Your task to perform on an android device: Check my email inbox Image 0: 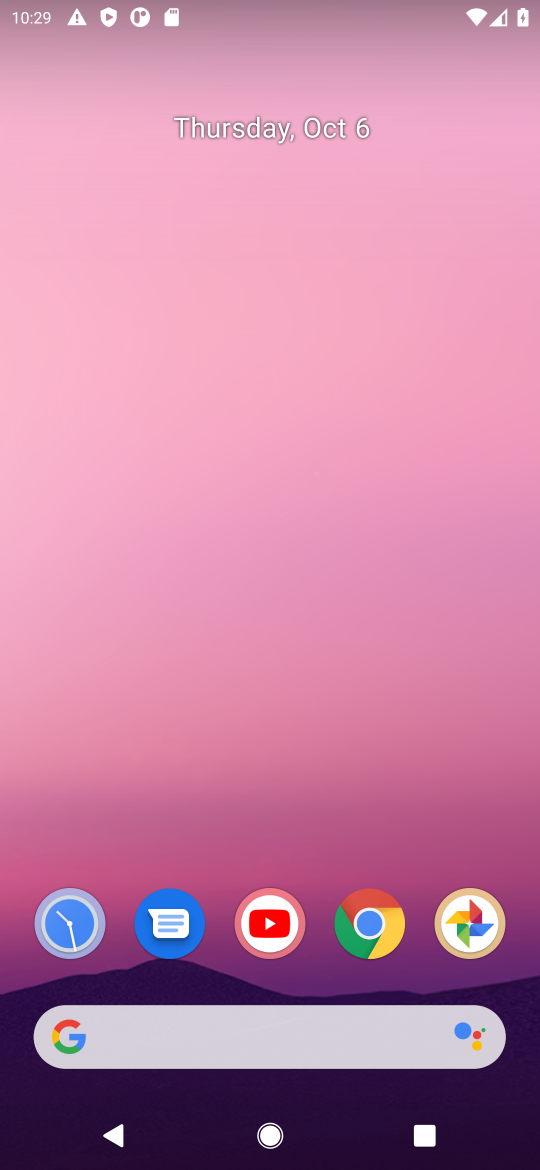
Step 0: drag from (407, 965) to (427, 33)
Your task to perform on an android device: Check my email inbox Image 1: 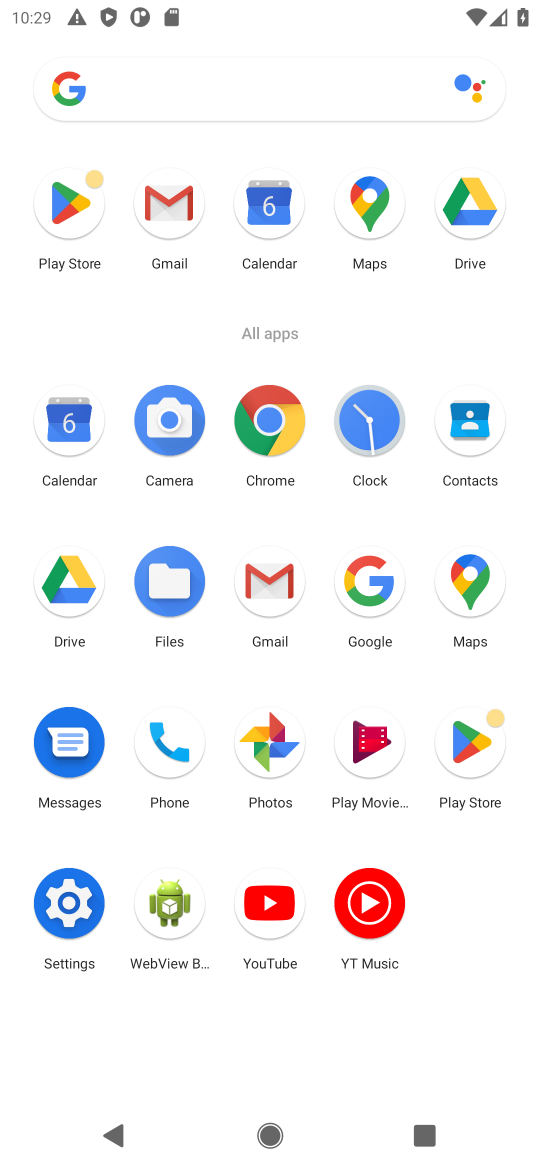
Step 1: click (173, 213)
Your task to perform on an android device: Check my email inbox Image 2: 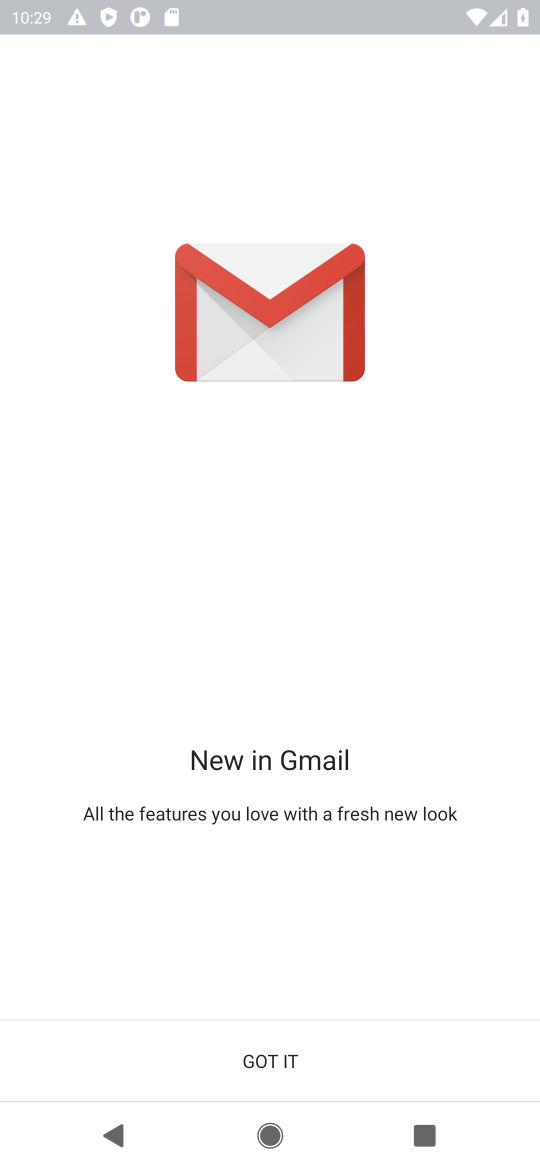
Step 2: click (281, 1059)
Your task to perform on an android device: Check my email inbox Image 3: 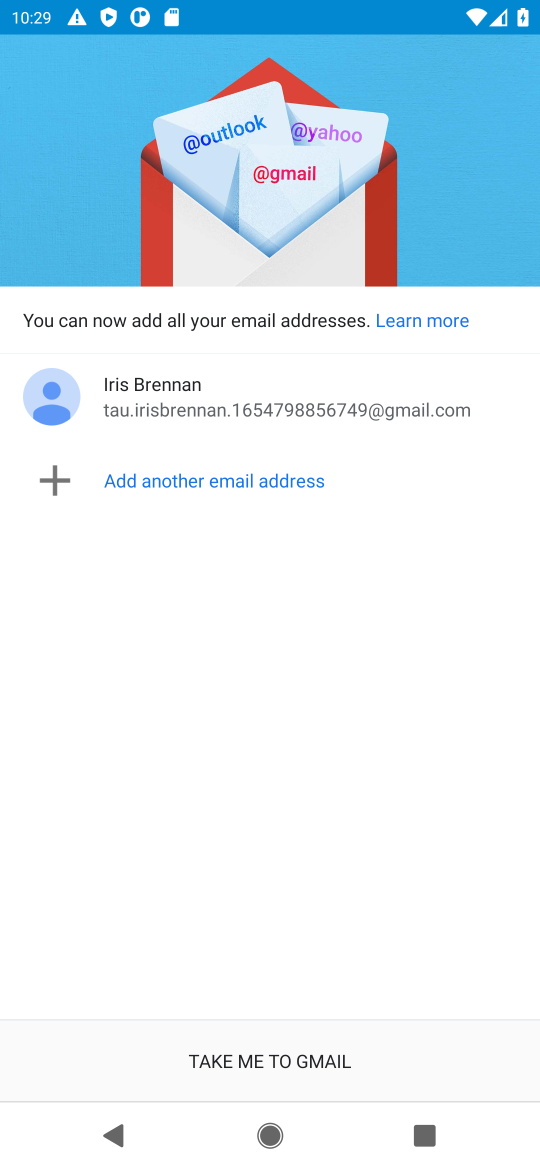
Step 3: click (271, 1057)
Your task to perform on an android device: Check my email inbox Image 4: 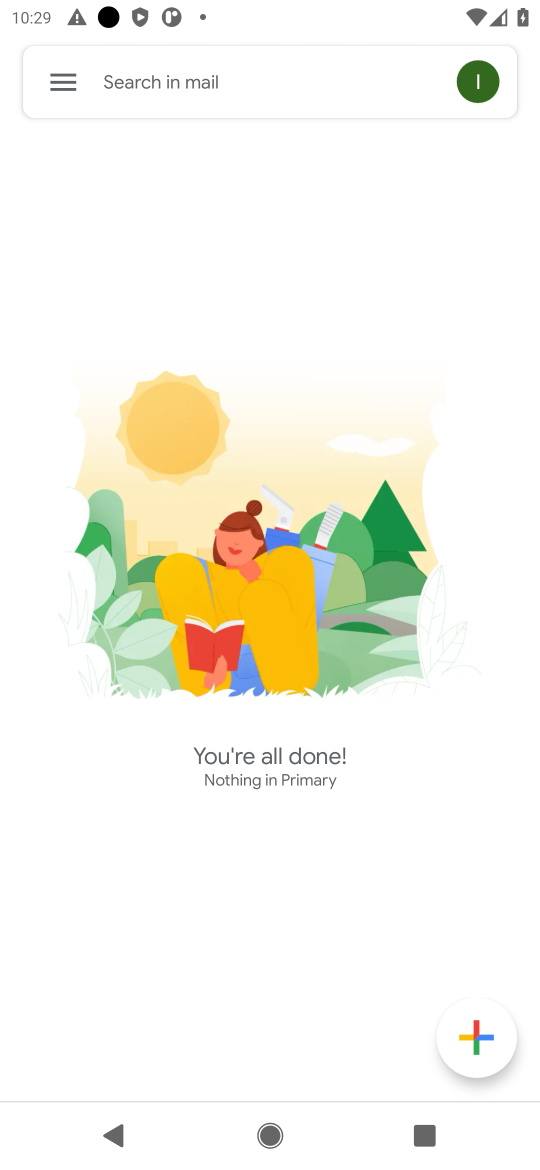
Step 4: click (63, 89)
Your task to perform on an android device: Check my email inbox Image 5: 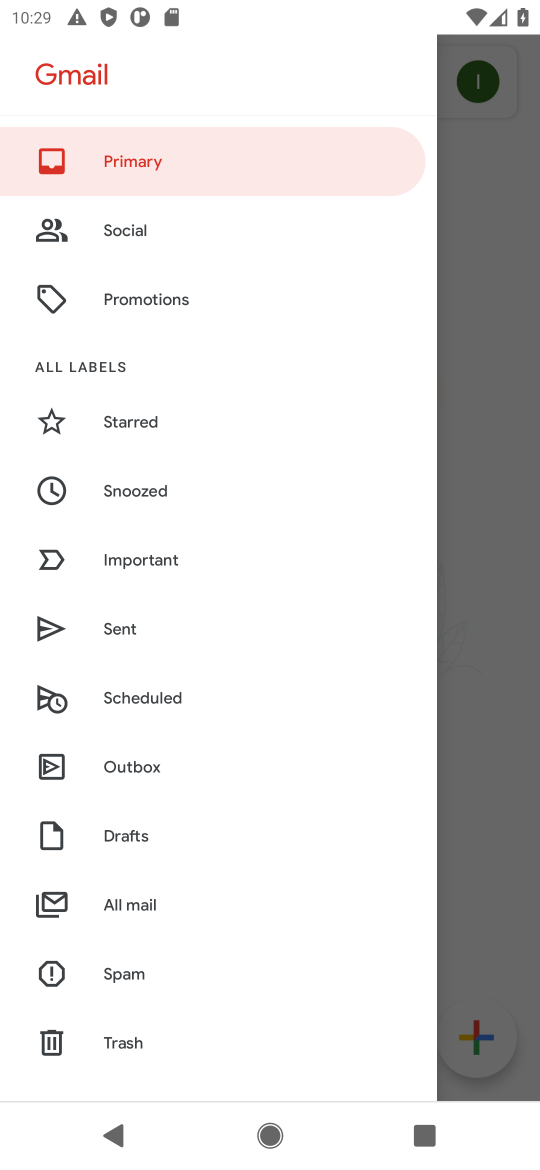
Step 5: click (125, 225)
Your task to perform on an android device: Check my email inbox Image 6: 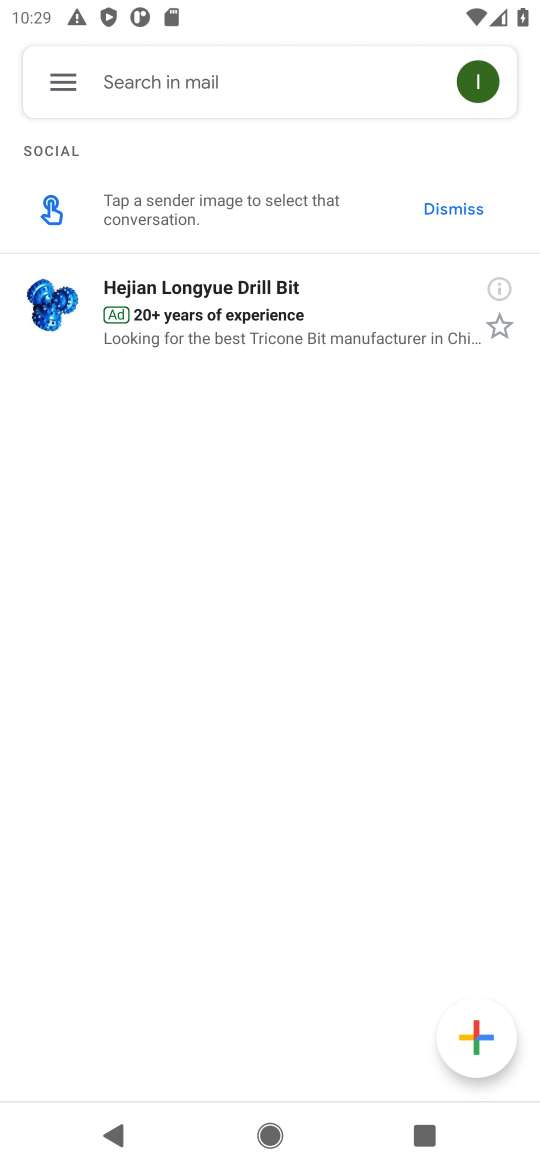
Step 6: click (59, 82)
Your task to perform on an android device: Check my email inbox Image 7: 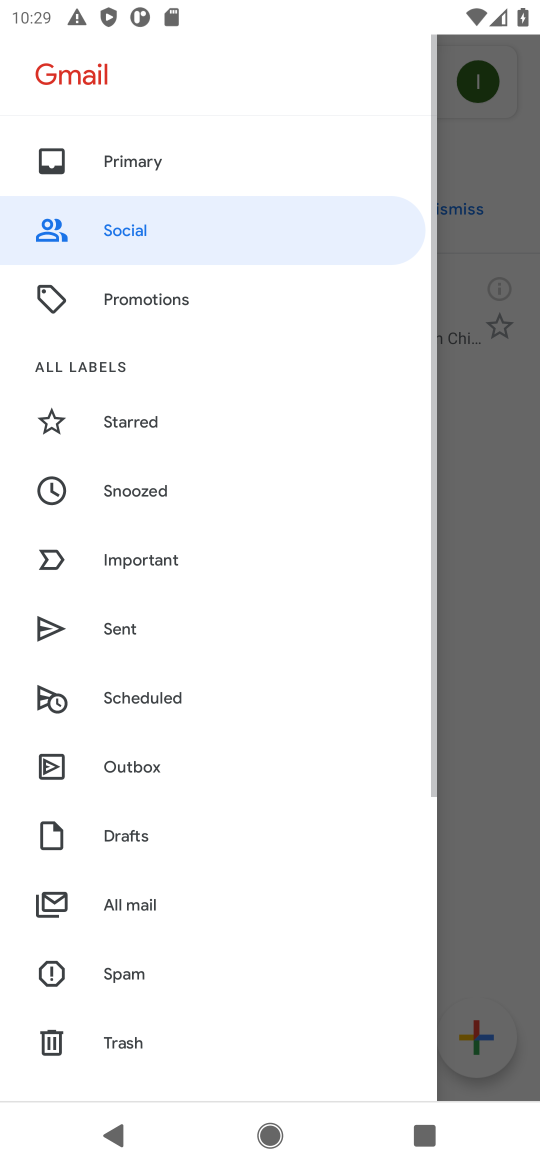
Step 7: click (113, 153)
Your task to perform on an android device: Check my email inbox Image 8: 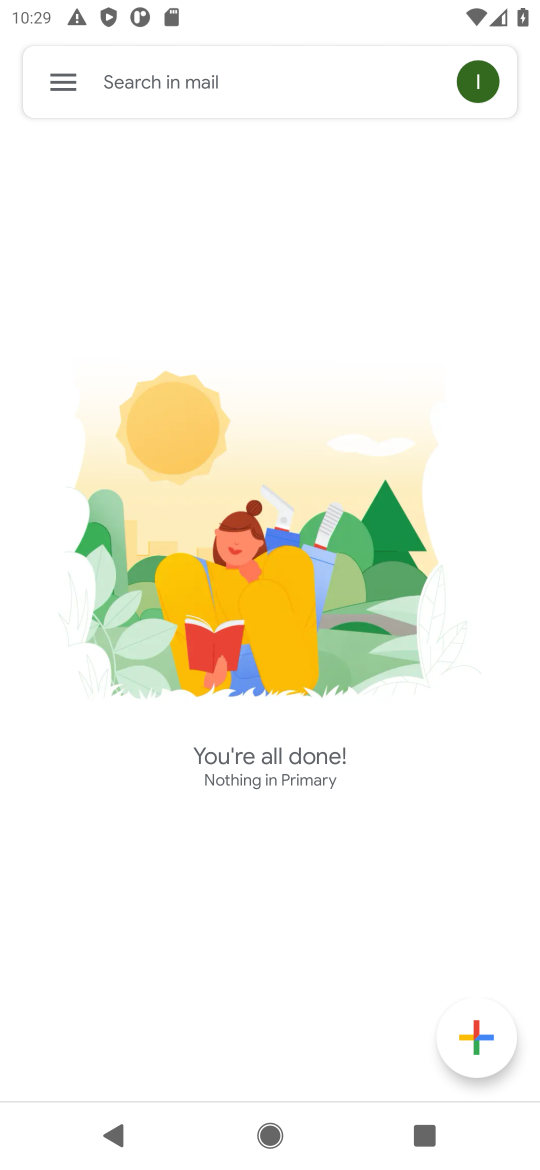
Step 8: task complete